Your task to perform on an android device: toggle translation in the chrome app Image 0: 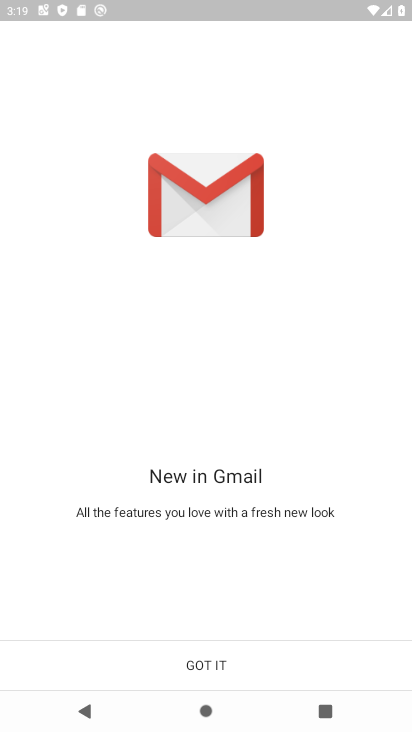
Step 0: press home button
Your task to perform on an android device: toggle translation in the chrome app Image 1: 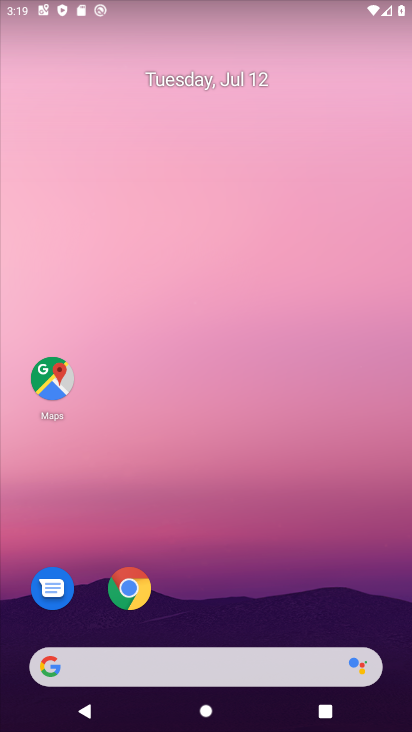
Step 1: click (127, 607)
Your task to perform on an android device: toggle translation in the chrome app Image 2: 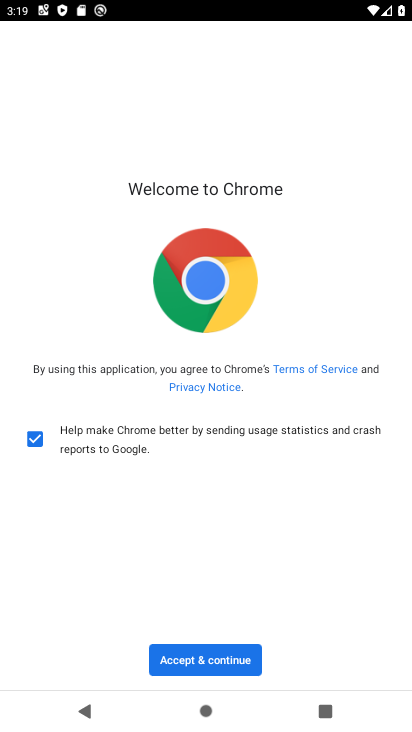
Step 2: click (218, 655)
Your task to perform on an android device: toggle translation in the chrome app Image 3: 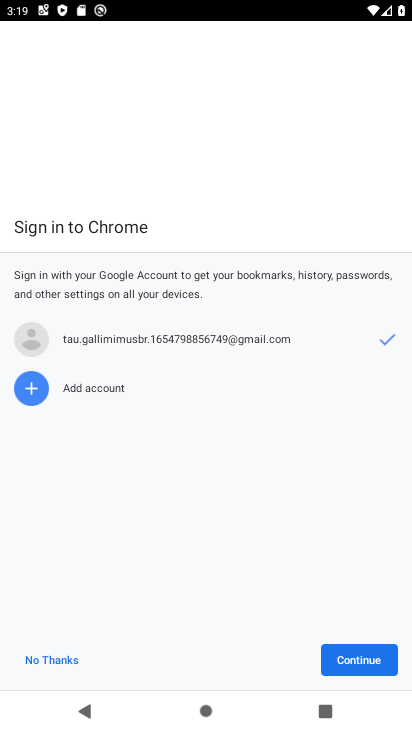
Step 3: click (370, 657)
Your task to perform on an android device: toggle translation in the chrome app Image 4: 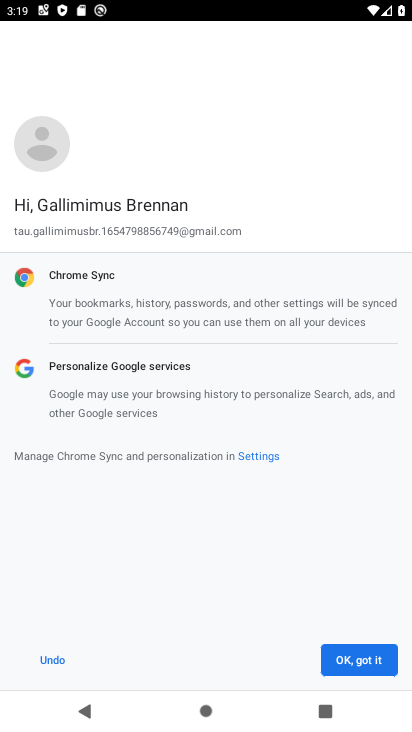
Step 4: click (370, 657)
Your task to perform on an android device: toggle translation in the chrome app Image 5: 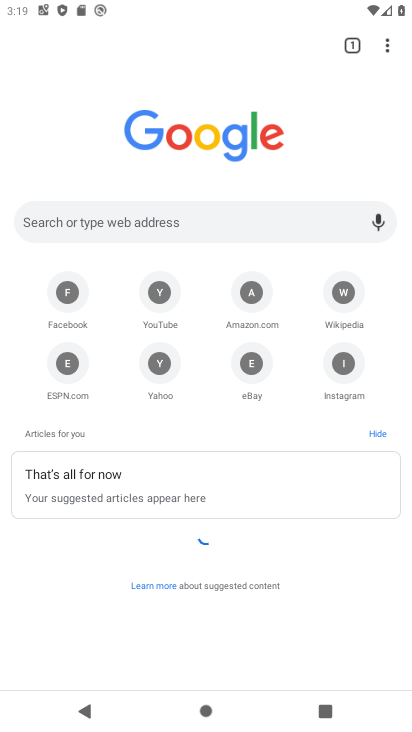
Step 5: click (386, 45)
Your task to perform on an android device: toggle translation in the chrome app Image 6: 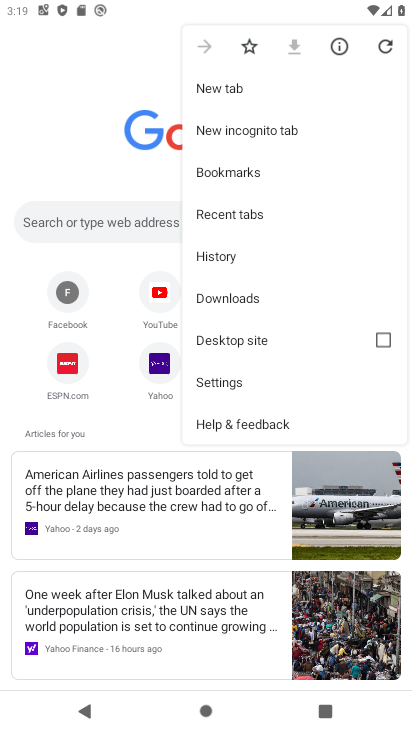
Step 6: click (253, 380)
Your task to perform on an android device: toggle translation in the chrome app Image 7: 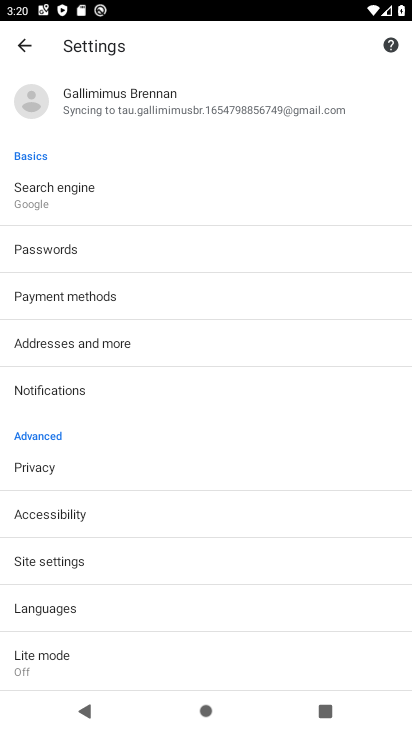
Step 7: click (109, 608)
Your task to perform on an android device: toggle translation in the chrome app Image 8: 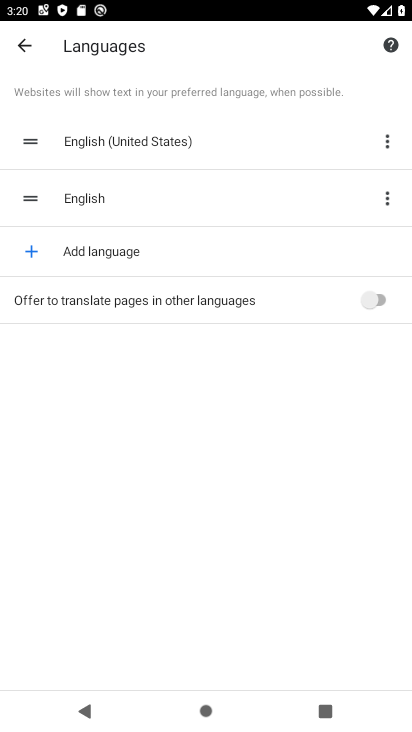
Step 8: click (377, 291)
Your task to perform on an android device: toggle translation in the chrome app Image 9: 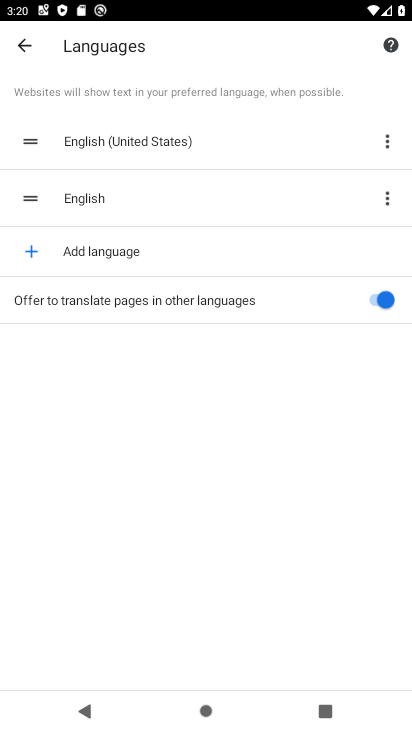
Step 9: task complete